Your task to perform on an android device: Go to Yahoo.com Image 0: 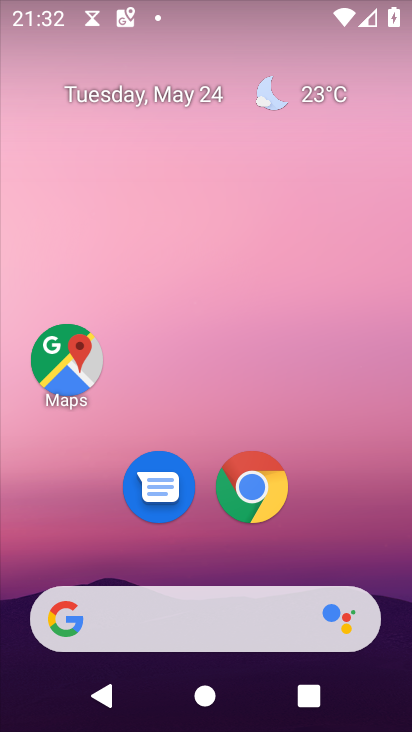
Step 0: click (244, 516)
Your task to perform on an android device: Go to Yahoo.com Image 1: 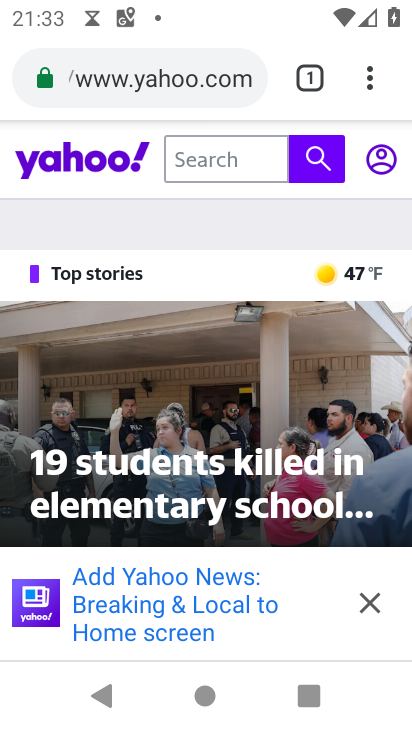
Step 1: task complete